Your task to perform on an android device: toggle translation in the chrome app Image 0: 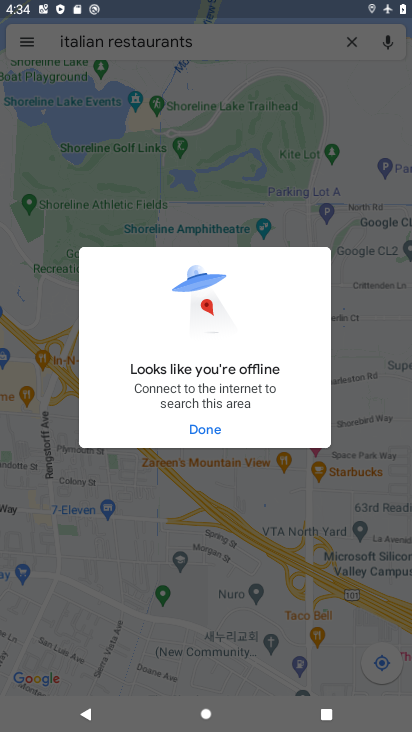
Step 0: press home button
Your task to perform on an android device: toggle translation in the chrome app Image 1: 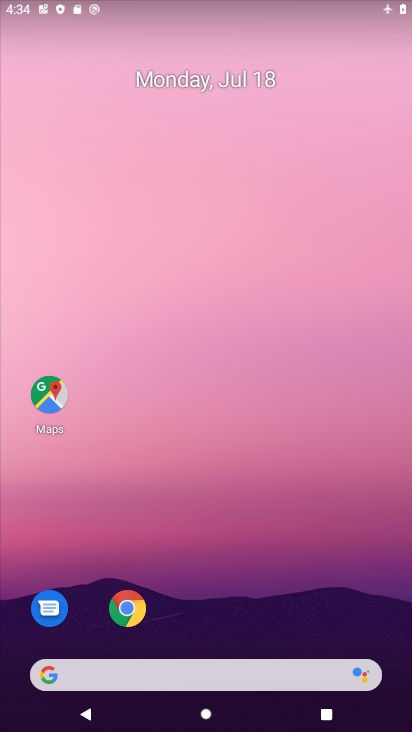
Step 1: drag from (305, 481) to (285, 9)
Your task to perform on an android device: toggle translation in the chrome app Image 2: 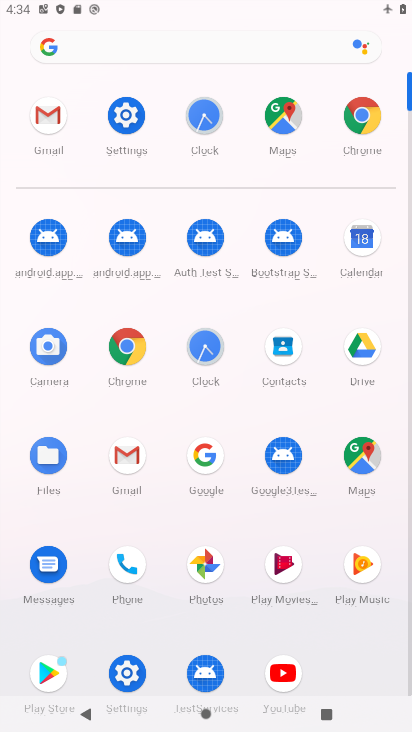
Step 2: click (124, 345)
Your task to perform on an android device: toggle translation in the chrome app Image 3: 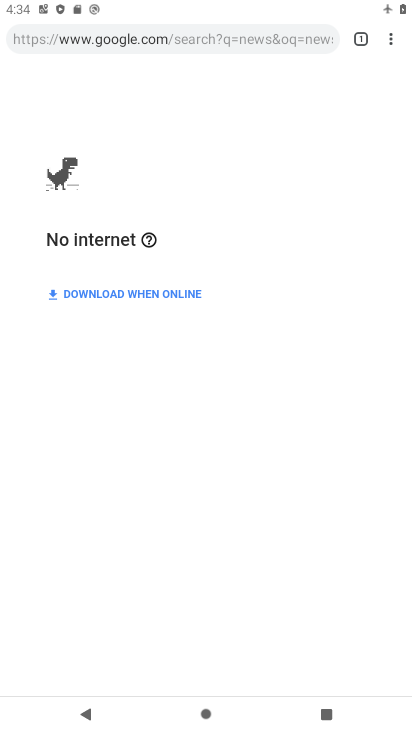
Step 3: drag from (392, 39) to (235, 434)
Your task to perform on an android device: toggle translation in the chrome app Image 4: 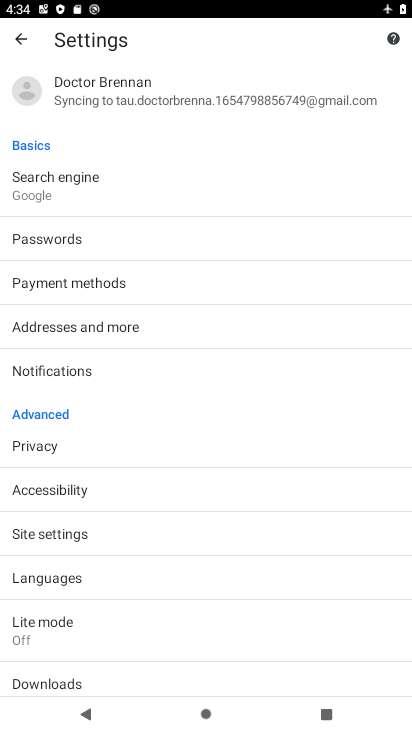
Step 4: click (71, 581)
Your task to perform on an android device: toggle translation in the chrome app Image 5: 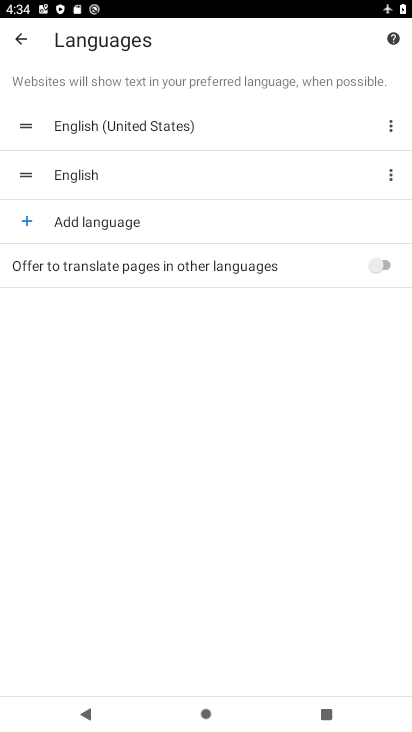
Step 5: click (377, 263)
Your task to perform on an android device: toggle translation in the chrome app Image 6: 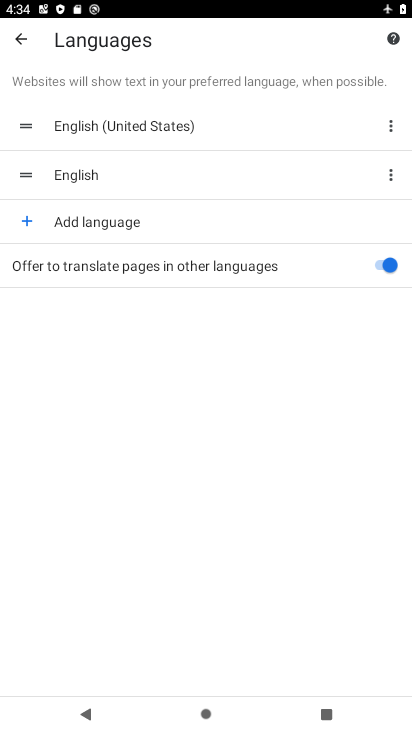
Step 6: task complete